Your task to perform on an android device: turn on showing notifications on the lock screen Image 0: 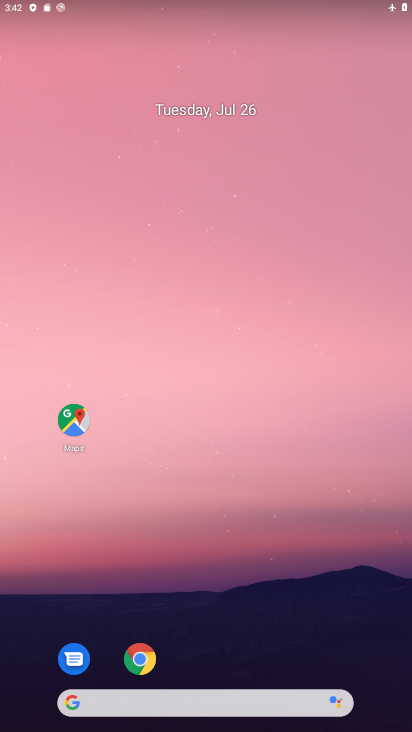
Step 0: drag from (259, 651) to (204, 14)
Your task to perform on an android device: turn on showing notifications on the lock screen Image 1: 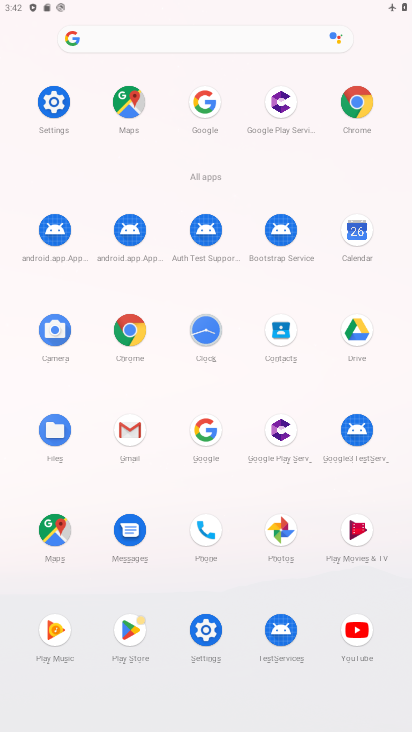
Step 1: click (53, 108)
Your task to perform on an android device: turn on showing notifications on the lock screen Image 2: 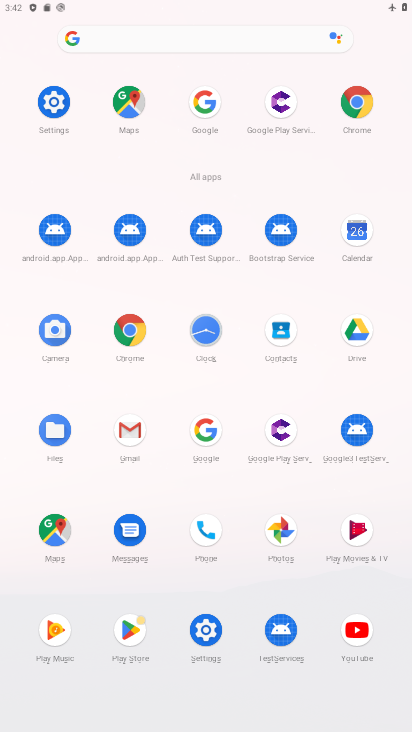
Step 2: click (56, 106)
Your task to perform on an android device: turn on showing notifications on the lock screen Image 3: 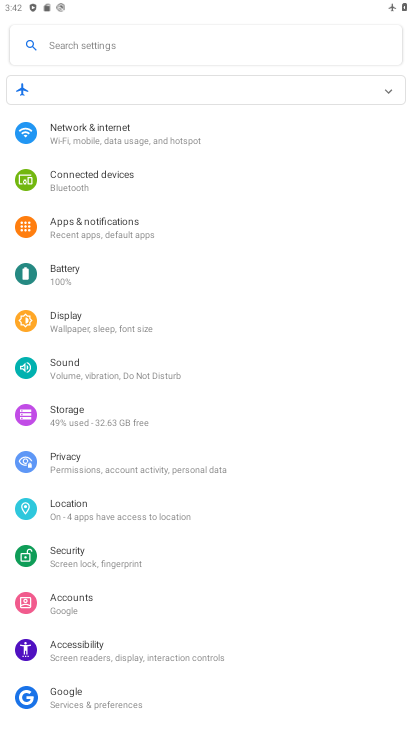
Step 3: click (102, 226)
Your task to perform on an android device: turn on showing notifications on the lock screen Image 4: 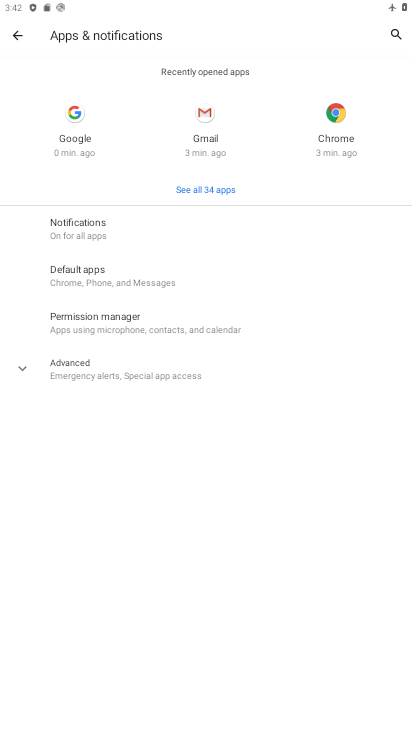
Step 4: click (79, 224)
Your task to perform on an android device: turn on showing notifications on the lock screen Image 5: 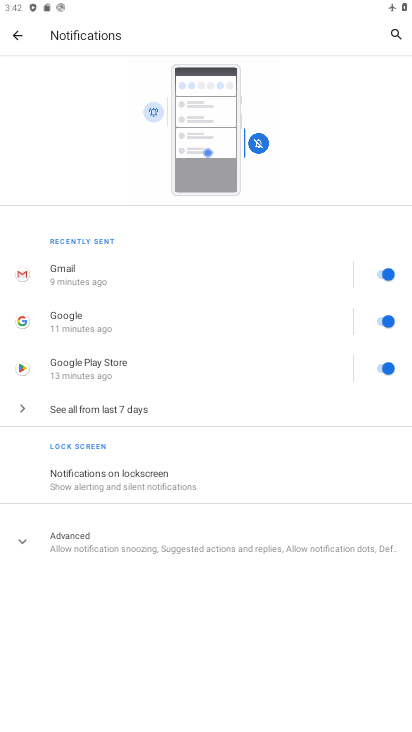
Step 5: click (137, 473)
Your task to perform on an android device: turn on showing notifications on the lock screen Image 6: 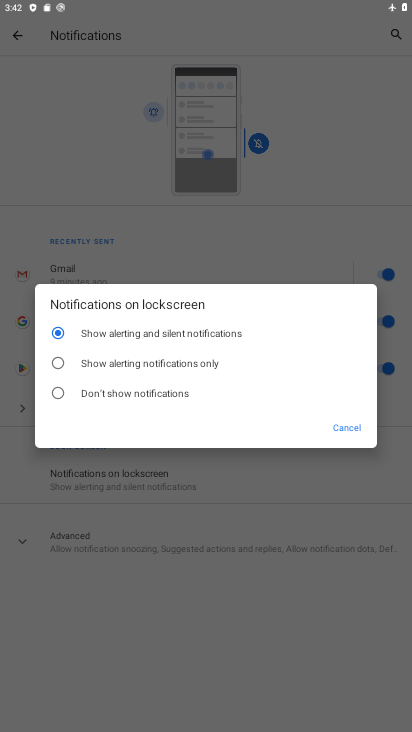
Step 6: click (97, 363)
Your task to perform on an android device: turn on showing notifications on the lock screen Image 7: 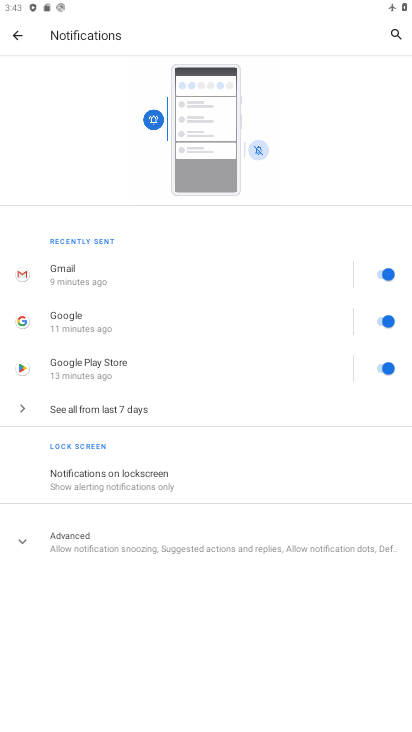
Step 7: task complete